Your task to perform on an android device: Go to internet settings Image 0: 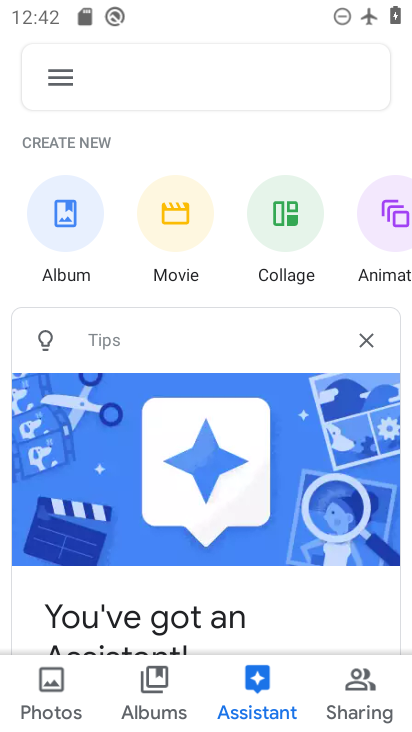
Step 0: press home button
Your task to perform on an android device: Go to internet settings Image 1: 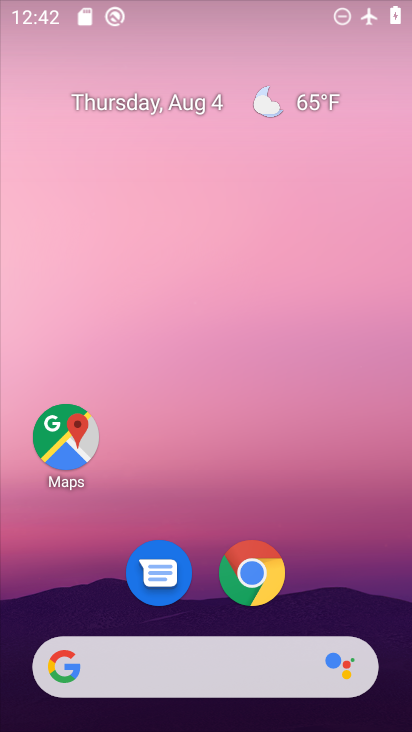
Step 1: drag from (287, 548) to (294, 129)
Your task to perform on an android device: Go to internet settings Image 2: 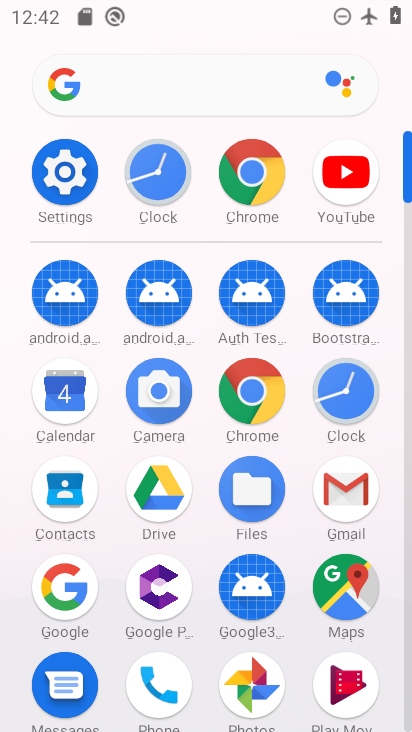
Step 2: click (55, 199)
Your task to perform on an android device: Go to internet settings Image 3: 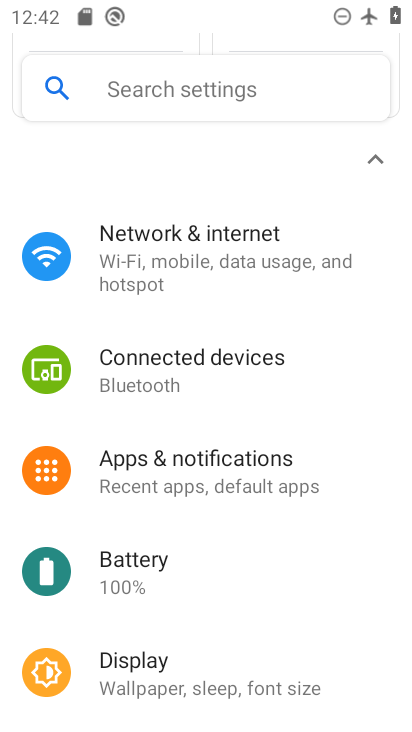
Step 3: click (162, 236)
Your task to perform on an android device: Go to internet settings Image 4: 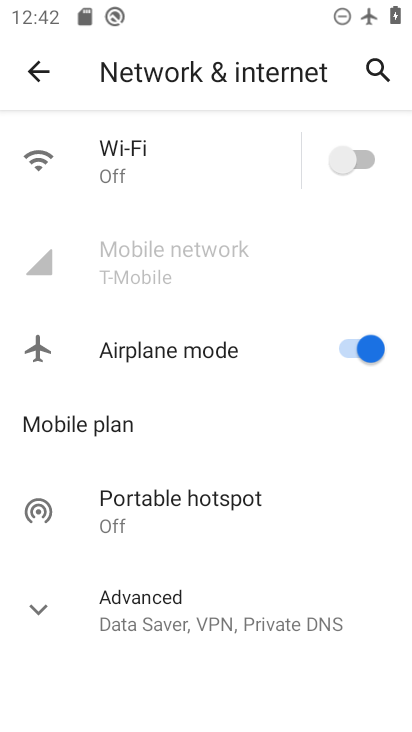
Step 4: click (169, 605)
Your task to perform on an android device: Go to internet settings Image 5: 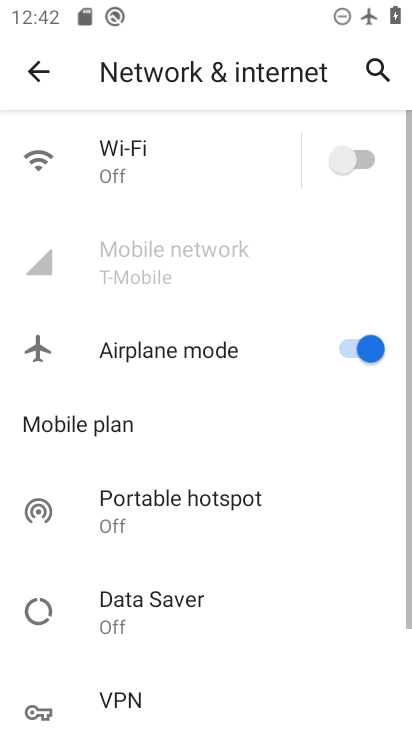
Step 5: task complete